Your task to perform on an android device: Open Google Chrome Image 0: 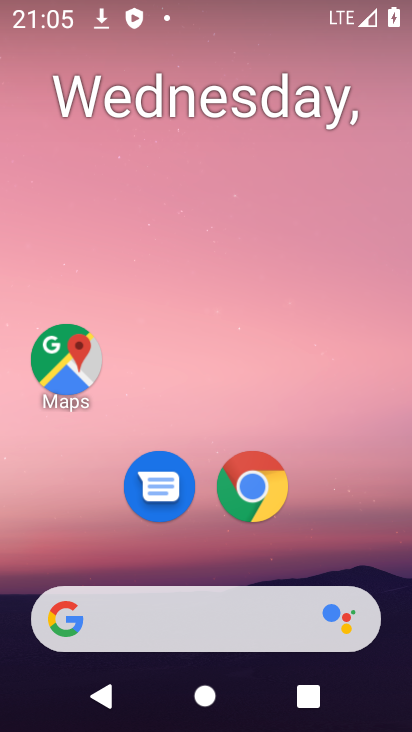
Step 0: click (254, 484)
Your task to perform on an android device: Open Google Chrome Image 1: 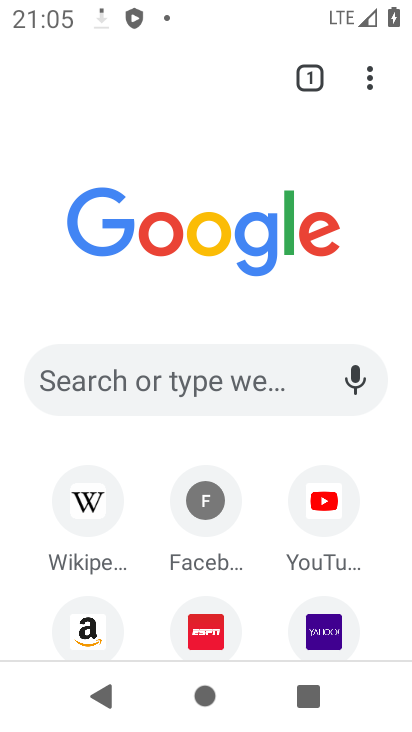
Step 1: task complete